Your task to perform on an android device: Go to wifi settings Image 0: 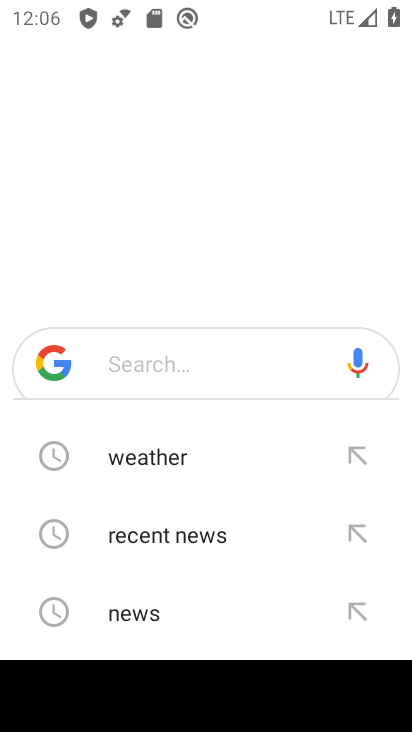
Step 0: press home button
Your task to perform on an android device: Go to wifi settings Image 1: 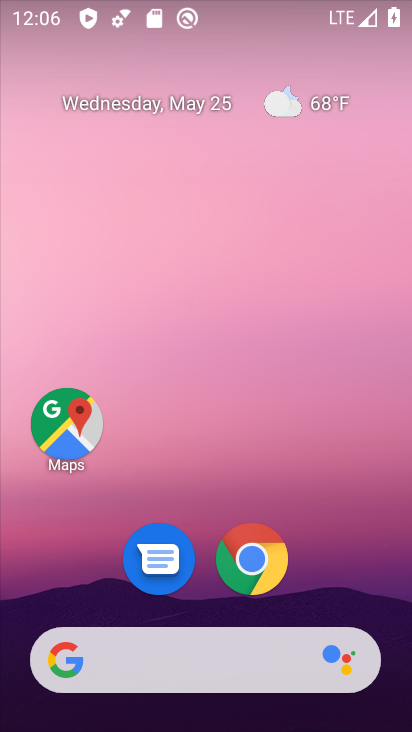
Step 1: drag from (387, 609) to (316, 86)
Your task to perform on an android device: Go to wifi settings Image 2: 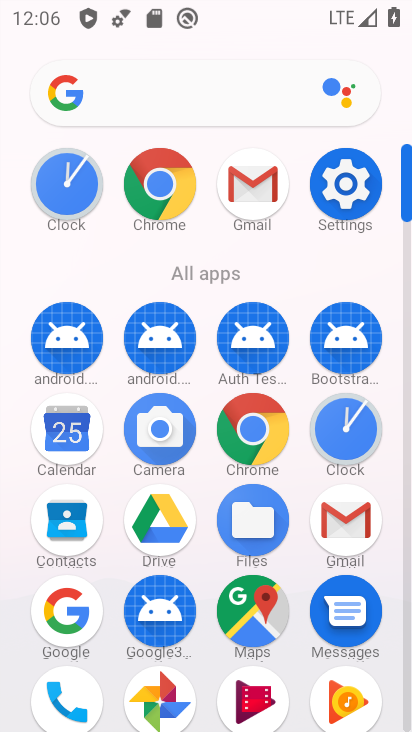
Step 2: click (408, 703)
Your task to perform on an android device: Go to wifi settings Image 3: 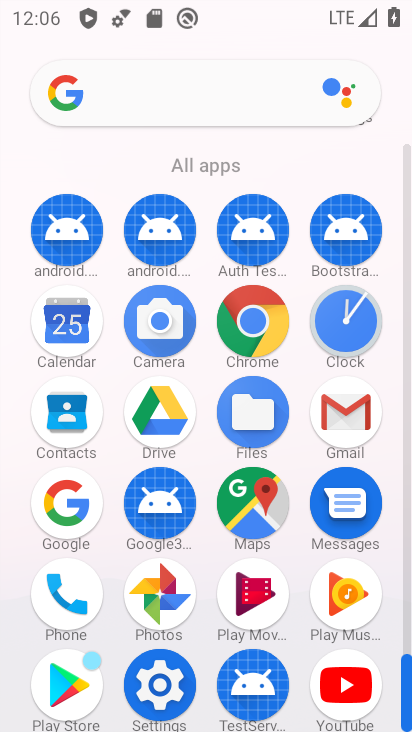
Step 3: click (170, 697)
Your task to perform on an android device: Go to wifi settings Image 4: 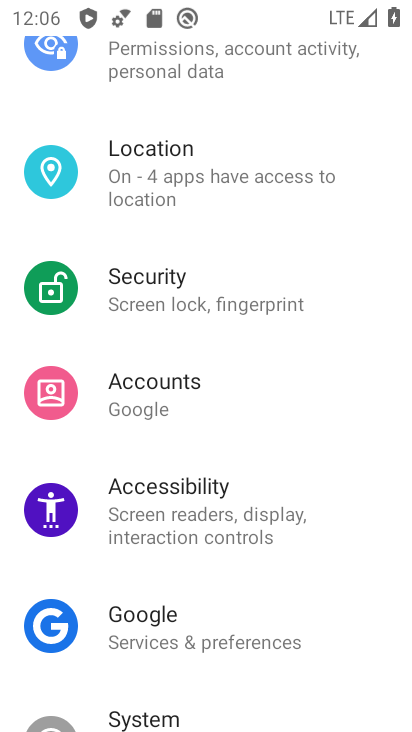
Step 4: drag from (341, 133) to (336, 460)
Your task to perform on an android device: Go to wifi settings Image 5: 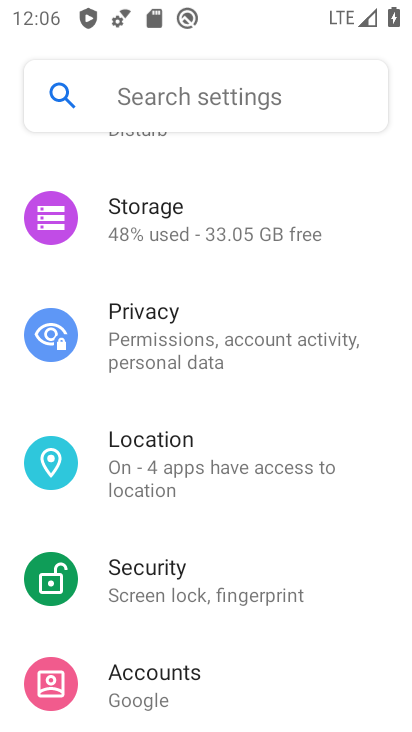
Step 5: drag from (335, 222) to (345, 568)
Your task to perform on an android device: Go to wifi settings Image 6: 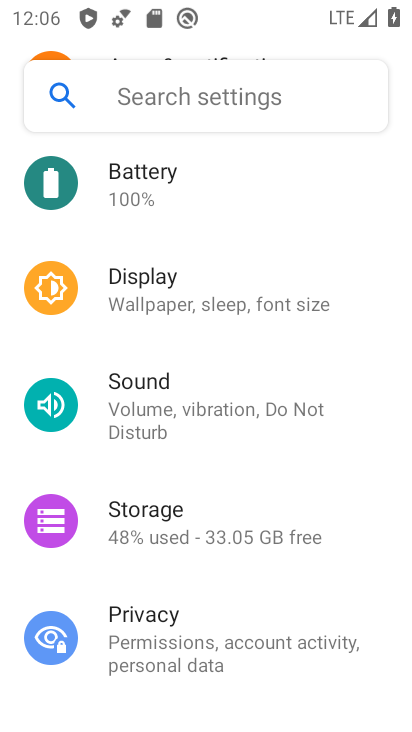
Step 6: drag from (333, 248) to (343, 552)
Your task to perform on an android device: Go to wifi settings Image 7: 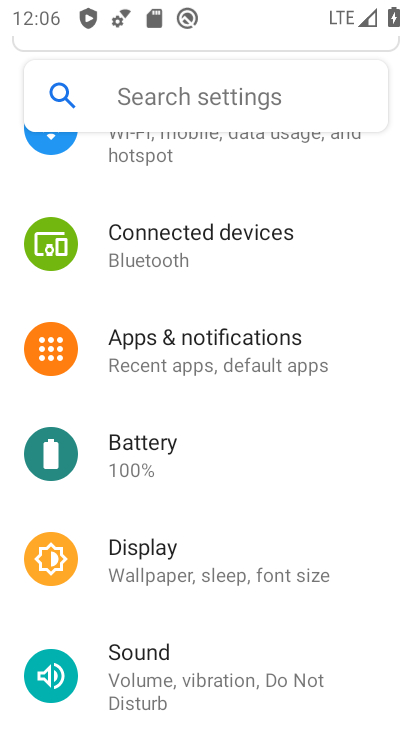
Step 7: drag from (366, 199) to (351, 494)
Your task to perform on an android device: Go to wifi settings Image 8: 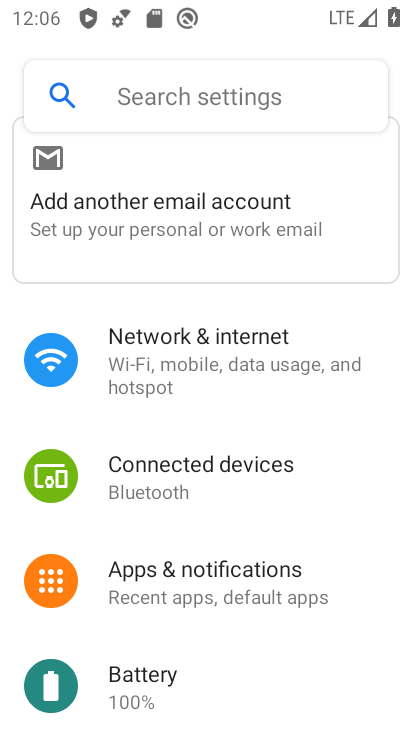
Step 8: click (152, 366)
Your task to perform on an android device: Go to wifi settings Image 9: 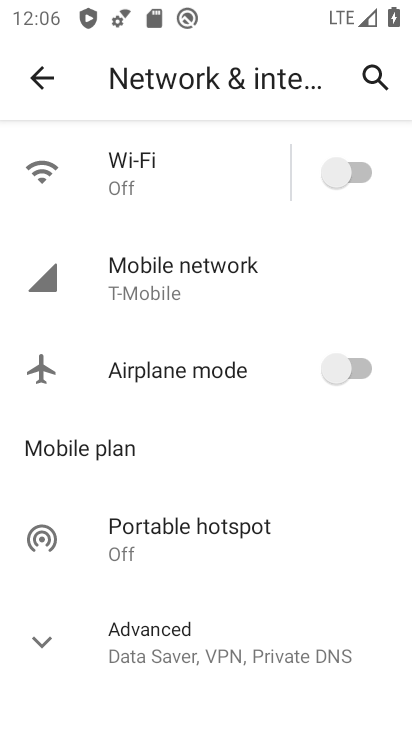
Step 9: click (361, 165)
Your task to perform on an android device: Go to wifi settings Image 10: 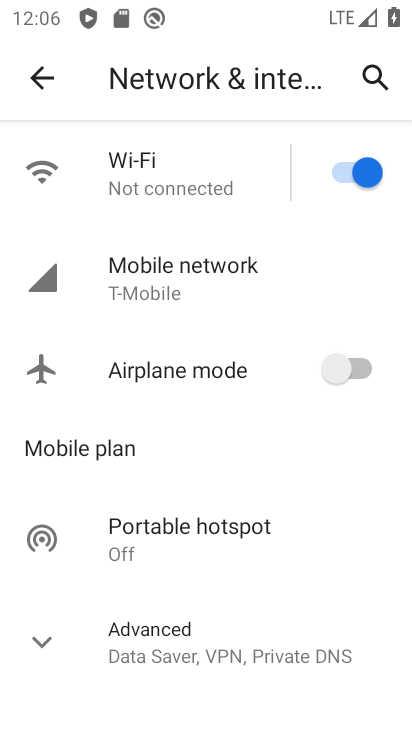
Step 10: click (123, 158)
Your task to perform on an android device: Go to wifi settings Image 11: 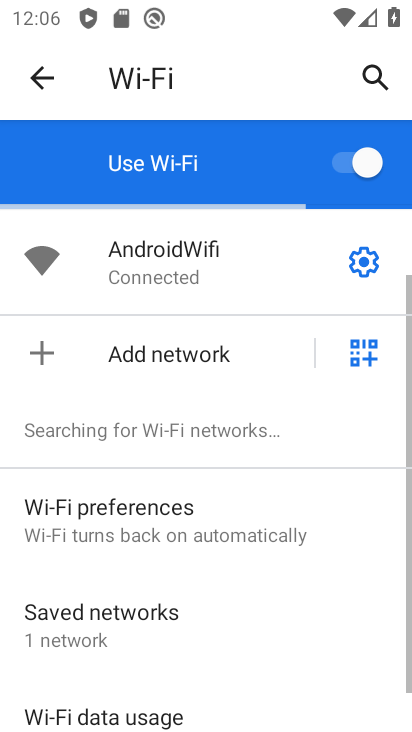
Step 11: drag from (276, 553) to (270, 216)
Your task to perform on an android device: Go to wifi settings Image 12: 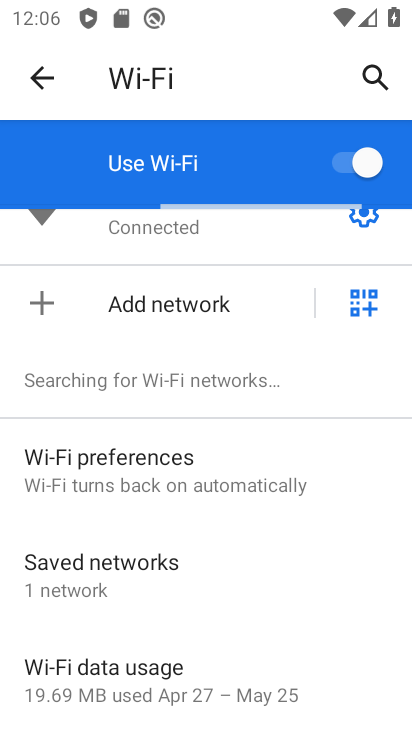
Step 12: click (371, 216)
Your task to perform on an android device: Go to wifi settings Image 13: 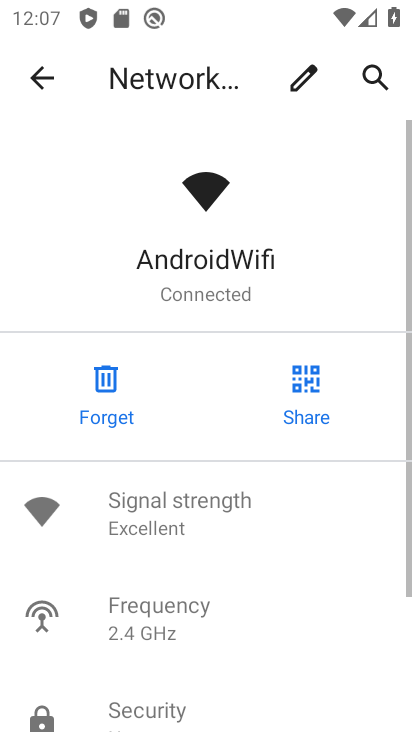
Step 13: drag from (235, 667) to (250, 207)
Your task to perform on an android device: Go to wifi settings Image 14: 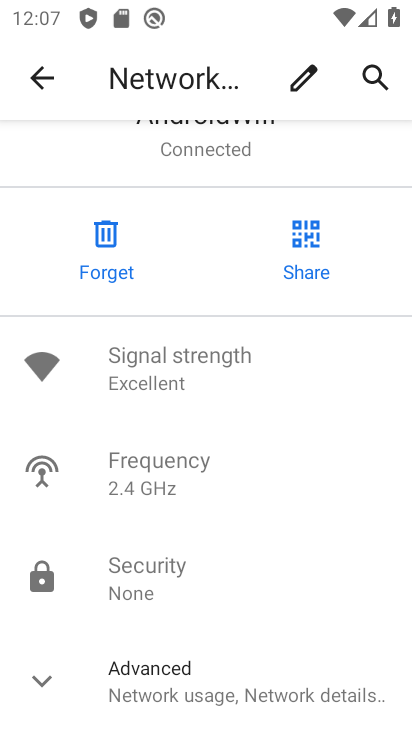
Step 14: click (37, 684)
Your task to perform on an android device: Go to wifi settings Image 15: 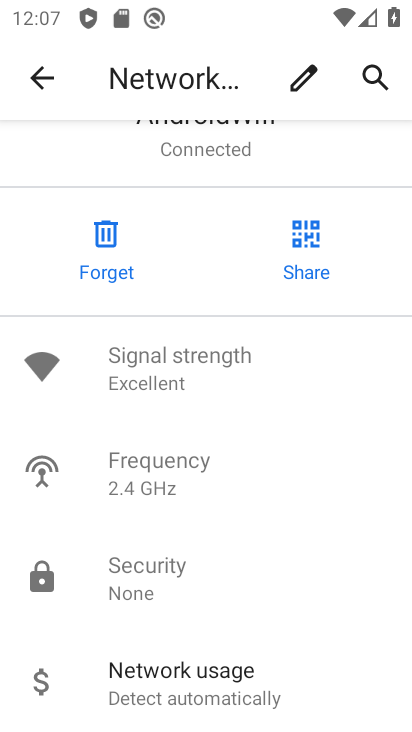
Step 15: task complete